Your task to perform on an android device: Go to location settings Image 0: 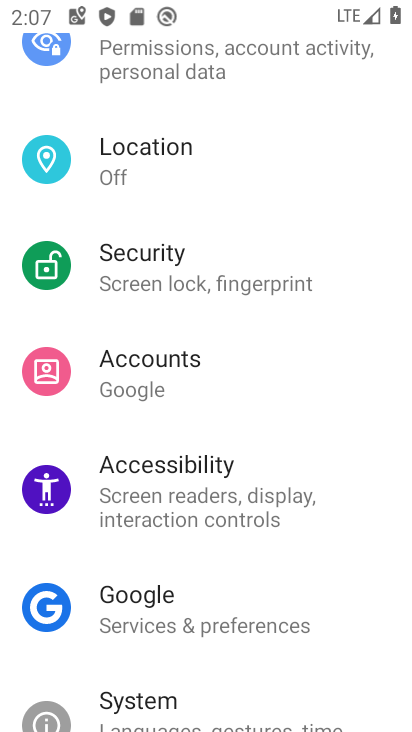
Step 0: drag from (345, 544) to (337, 414)
Your task to perform on an android device: Go to location settings Image 1: 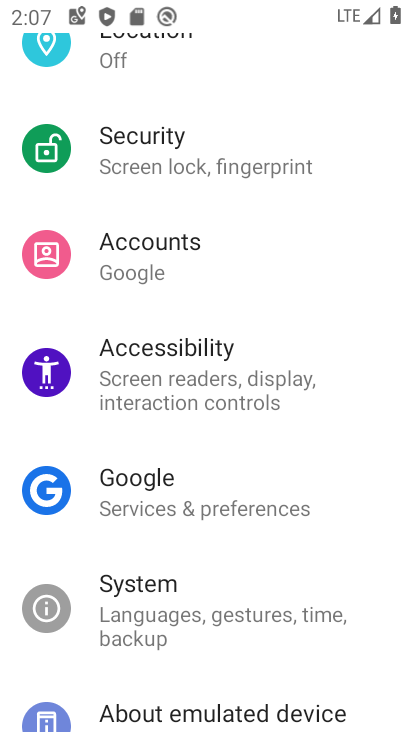
Step 1: drag from (367, 548) to (358, 360)
Your task to perform on an android device: Go to location settings Image 2: 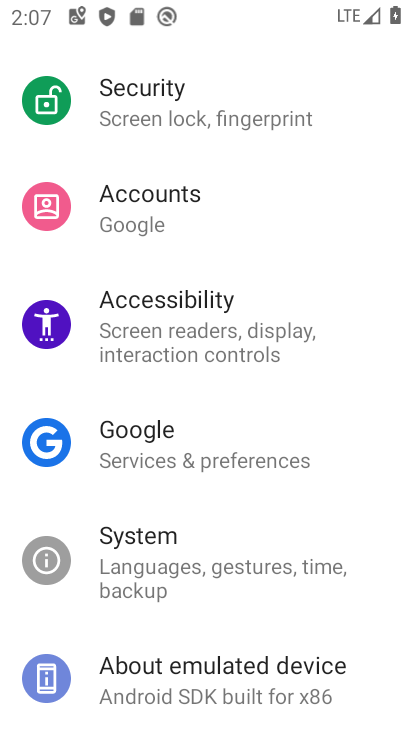
Step 2: drag from (359, 272) to (355, 401)
Your task to perform on an android device: Go to location settings Image 3: 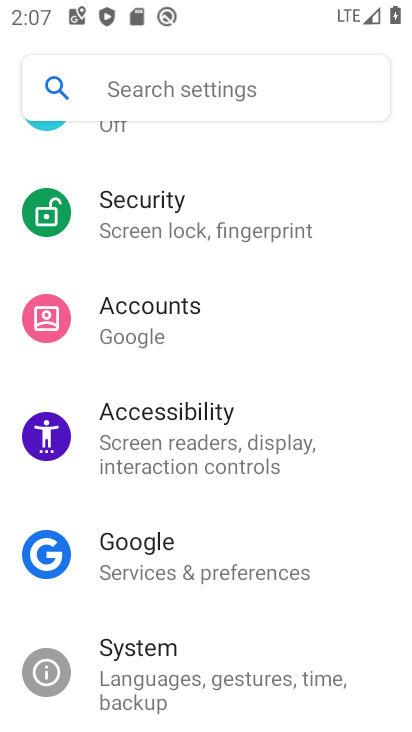
Step 3: drag from (345, 297) to (352, 431)
Your task to perform on an android device: Go to location settings Image 4: 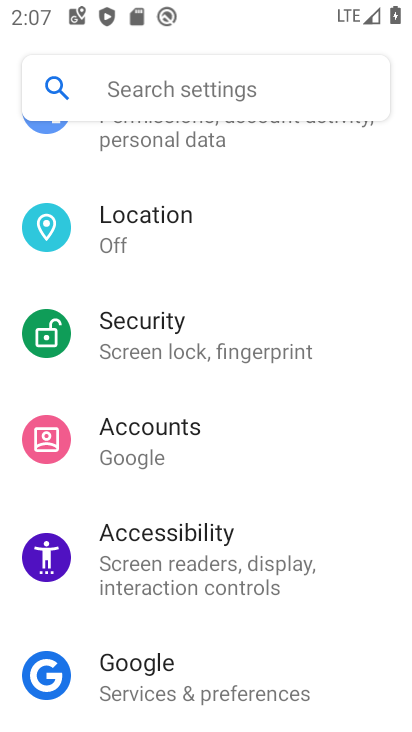
Step 4: drag from (349, 272) to (350, 413)
Your task to perform on an android device: Go to location settings Image 5: 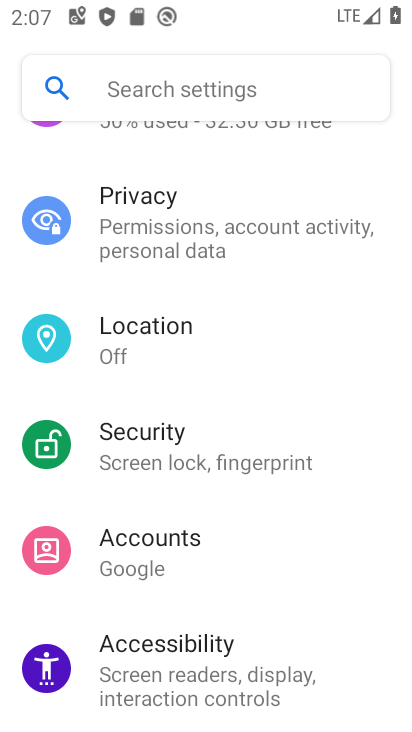
Step 5: drag from (311, 279) to (305, 421)
Your task to perform on an android device: Go to location settings Image 6: 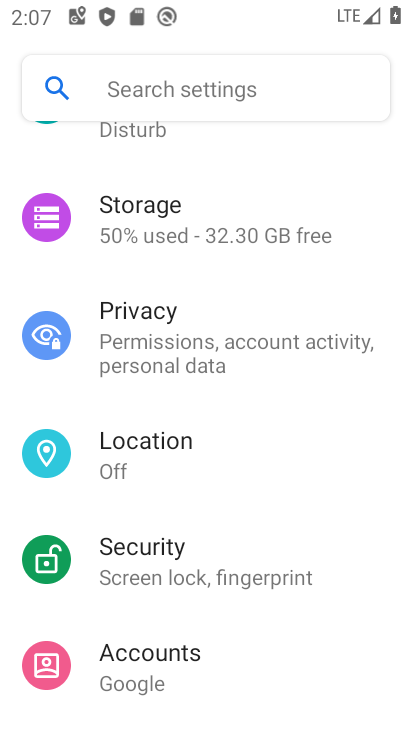
Step 6: click (230, 466)
Your task to perform on an android device: Go to location settings Image 7: 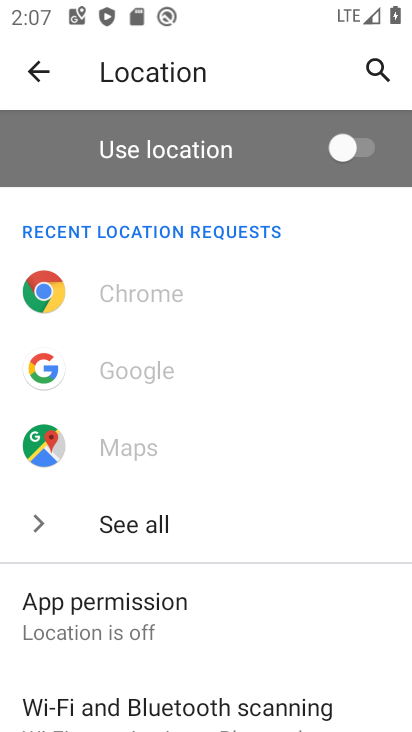
Step 7: task complete